Your task to perform on an android device: What's the weather today? Image 0: 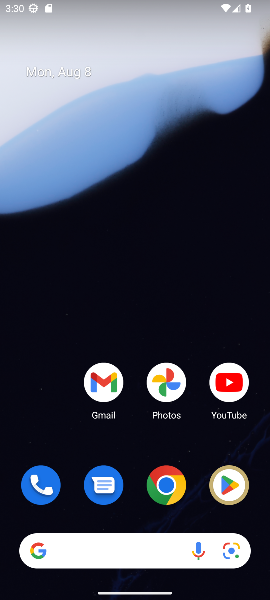
Step 0: drag from (169, 544) to (164, 452)
Your task to perform on an android device: What's the weather today? Image 1: 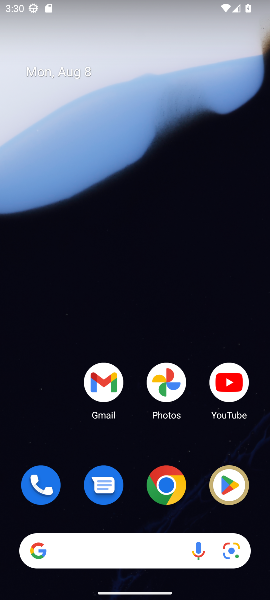
Step 1: drag from (162, 537) to (121, 236)
Your task to perform on an android device: What's the weather today? Image 2: 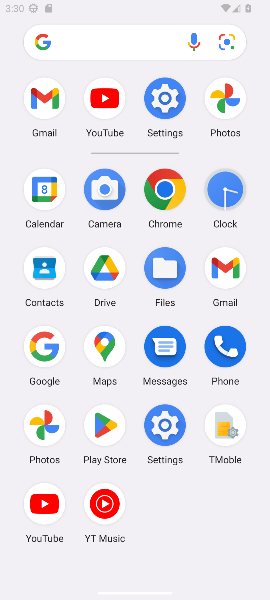
Step 2: drag from (153, 481) to (98, 135)
Your task to perform on an android device: What's the weather today? Image 3: 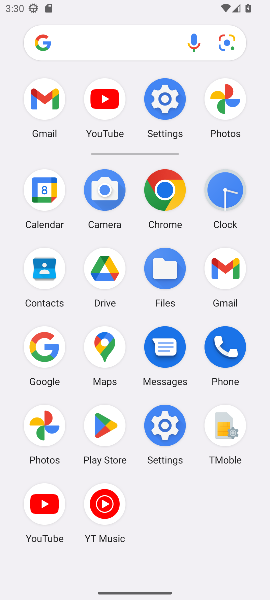
Step 3: click (162, 430)
Your task to perform on an android device: What's the weather today? Image 4: 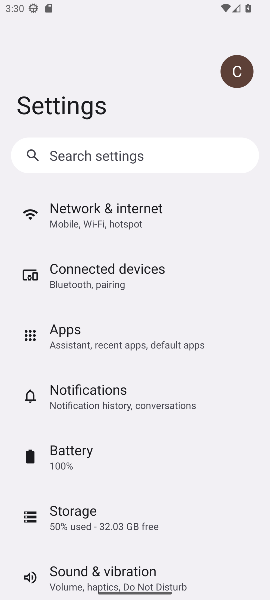
Step 4: press back button
Your task to perform on an android device: What's the weather today? Image 5: 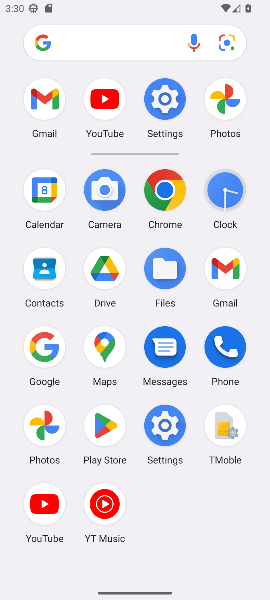
Step 5: click (163, 205)
Your task to perform on an android device: What's the weather today? Image 6: 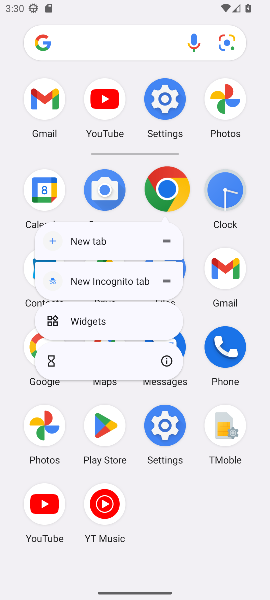
Step 6: click (166, 200)
Your task to perform on an android device: What's the weather today? Image 7: 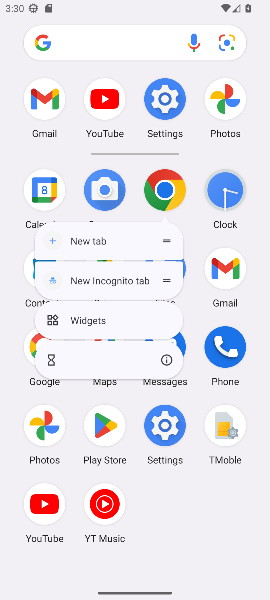
Step 7: click (167, 197)
Your task to perform on an android device: What's the weather today? Image 8: 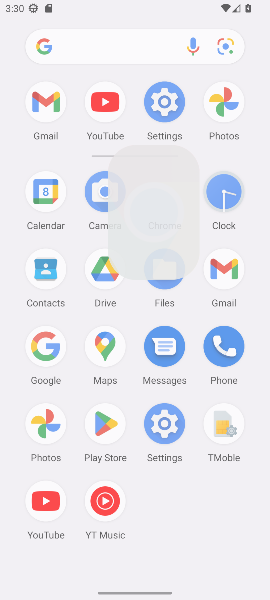
Step 8: click (167, 197)
Your task to perform on an android device: What's the weather today? Image 9: 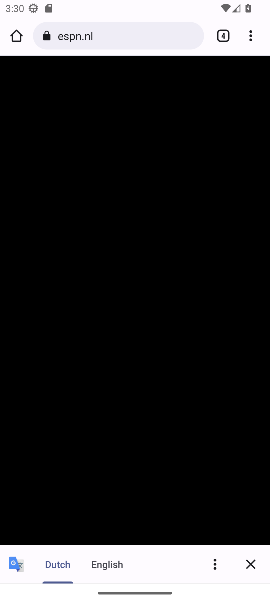
Step 9: click (249, 32)
Your task to perform on an android device: What's the weather today? Image 10: 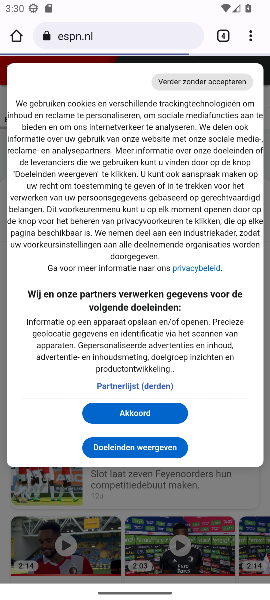
Step 10: drag from (244, 36) to (144, 70)
Your task to perform on an android device: What's the weather today? Image 11: 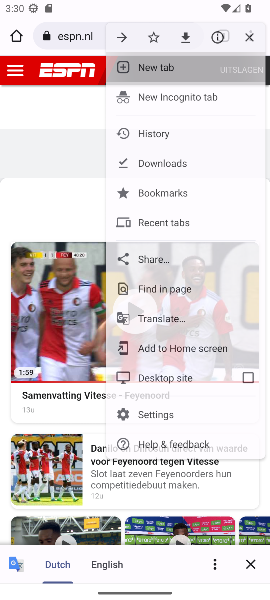
Step 11: click (152, 68)
Your task to perform on an android device: What's the weather today? Image 12: 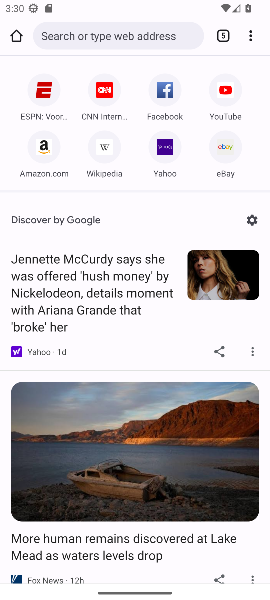
Step 12: click (82, 31)
Your task to perform on an android device: What's the weather today? Image 13: 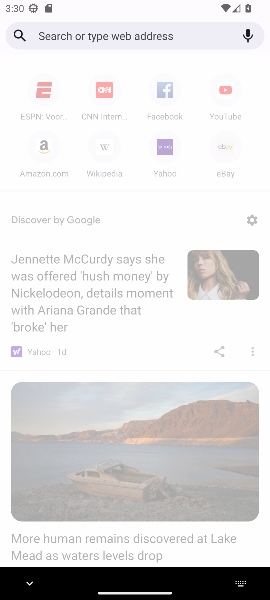
Step 13: type "what's the weather today"
Your task to perform on an android device: What's the weather today? Image 14: 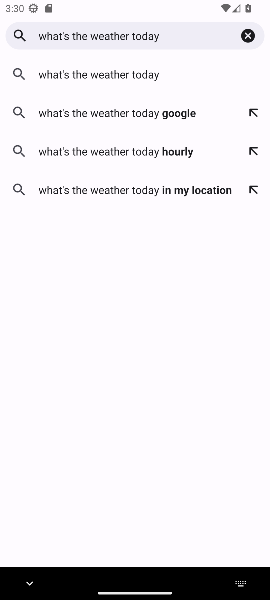
Step 14: click (102, 77)
Your task to perform on an android device: What's the weather today? Image 15: 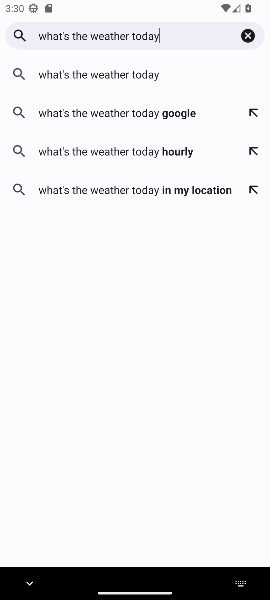
Step 15: click (102, 77)
Your task to perform on an android device: What's the weather today? Image 16: 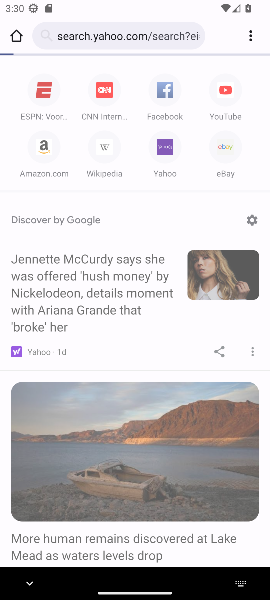
Step 16: click (105, 70)
Your task to perform on an android device: What's the weather today? Image 17: 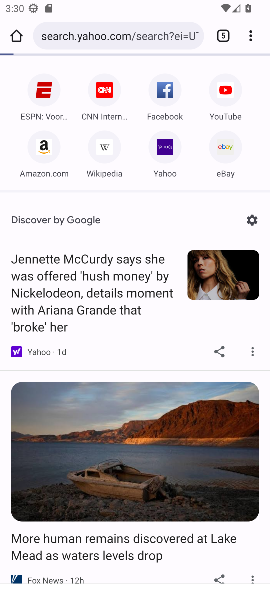
Step 17: click (107, 71)
Your task to perform on an android device: What's the weather today? Image 18: 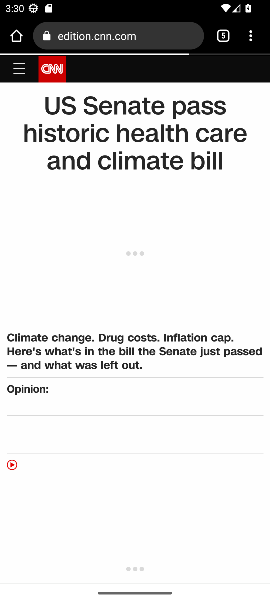
Step 18: task complete